Your task to perform on an android device: View the shopping cart on ebay. Add usb-b to the cart on ebay, then select checkout. Image 0: 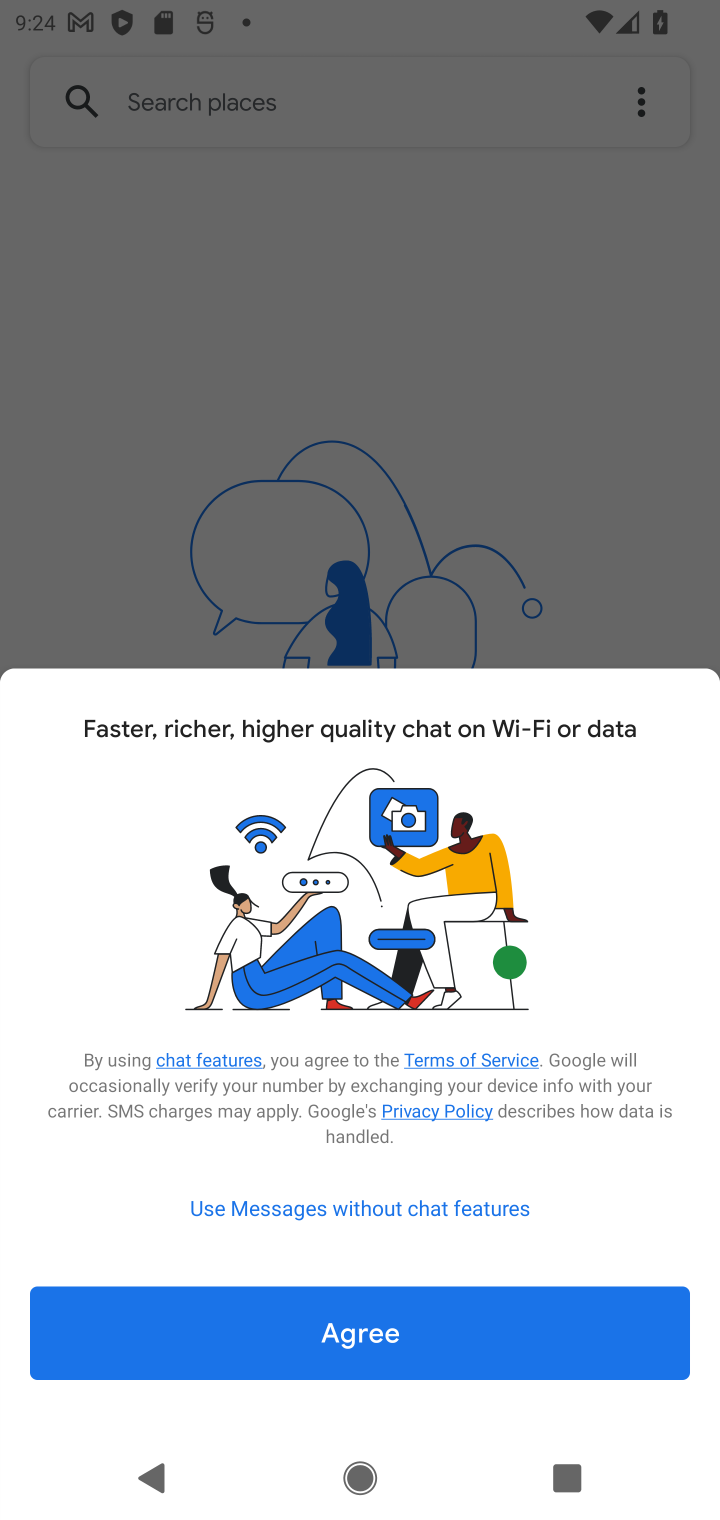
Step 0: press home button
Your task to perform on an android device: View the shopping cart on ebay. Add usb-b to the cart on ebay, then select checkout. Image 1: 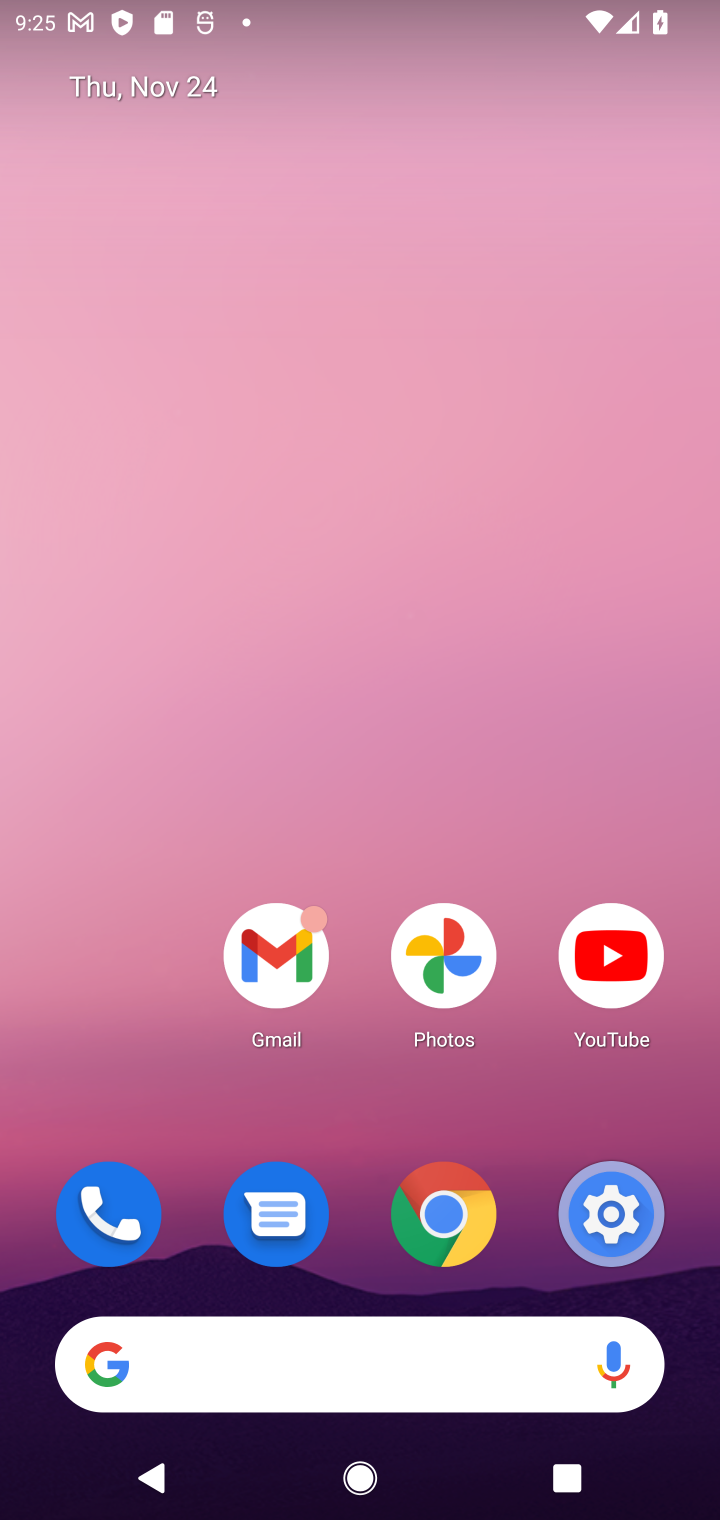
Step 1: click (333, 1402)
Your task to perform on an android device: View the shopping cart on ebay. Add usb-b to the cart on ebay, then select checkout. Image 2: 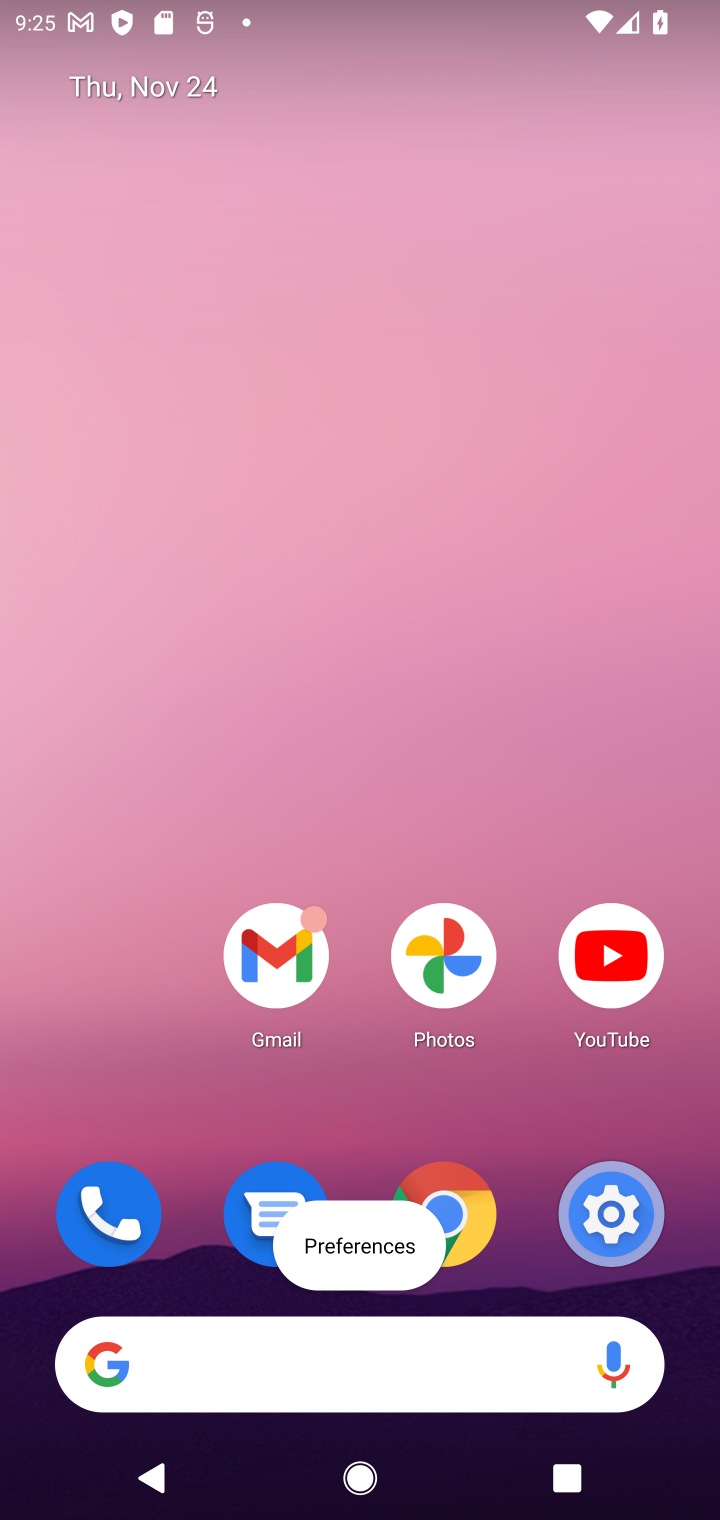
Step 2: type "ebay"
Your task to perform on an android device: View the shopping cart on ebay. Add usb-b to the cart on ebay, then select checkout. Image 3: 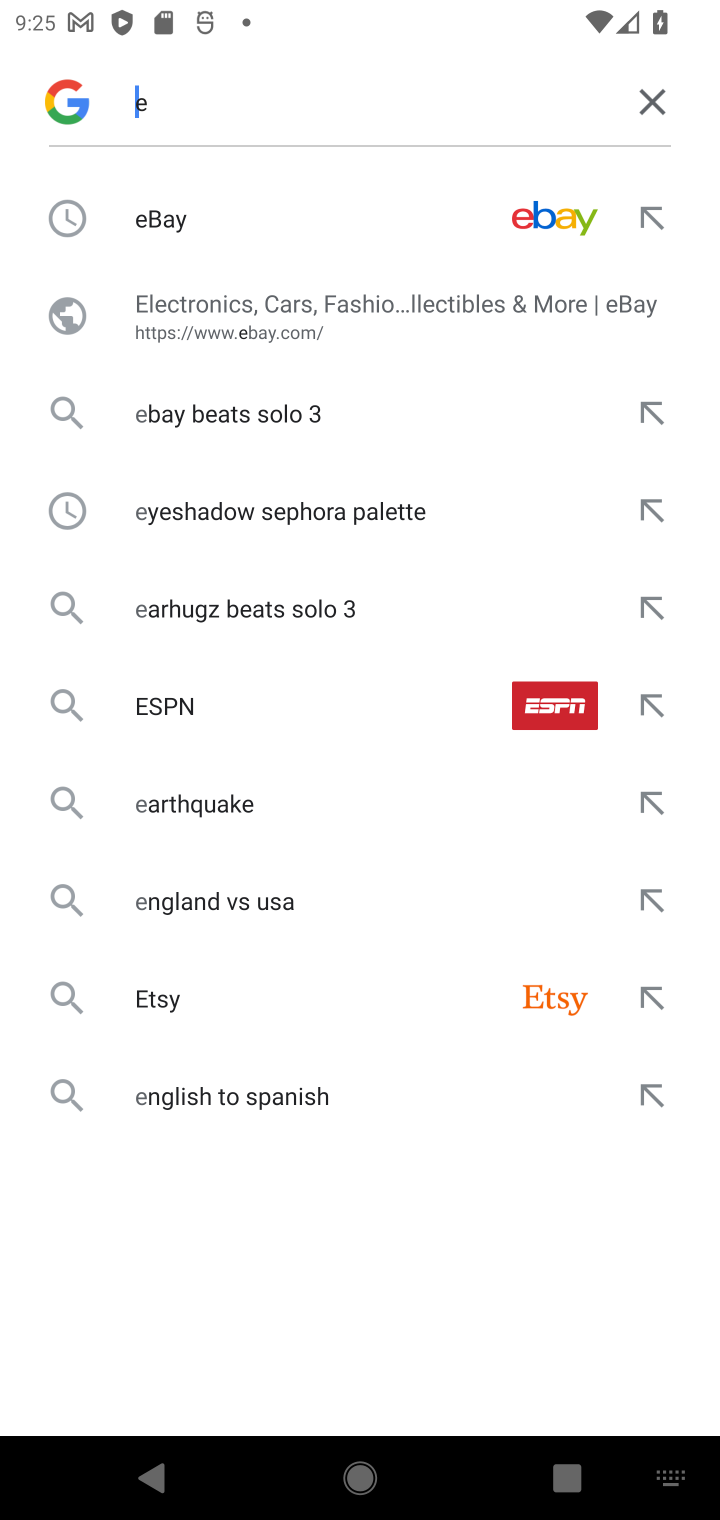
Step 3: click (292, 248)
Your task to perform on an android device: View the shopping cart on ebay. Add usb-b to the cart on ebay, then select checkout. Image 4: 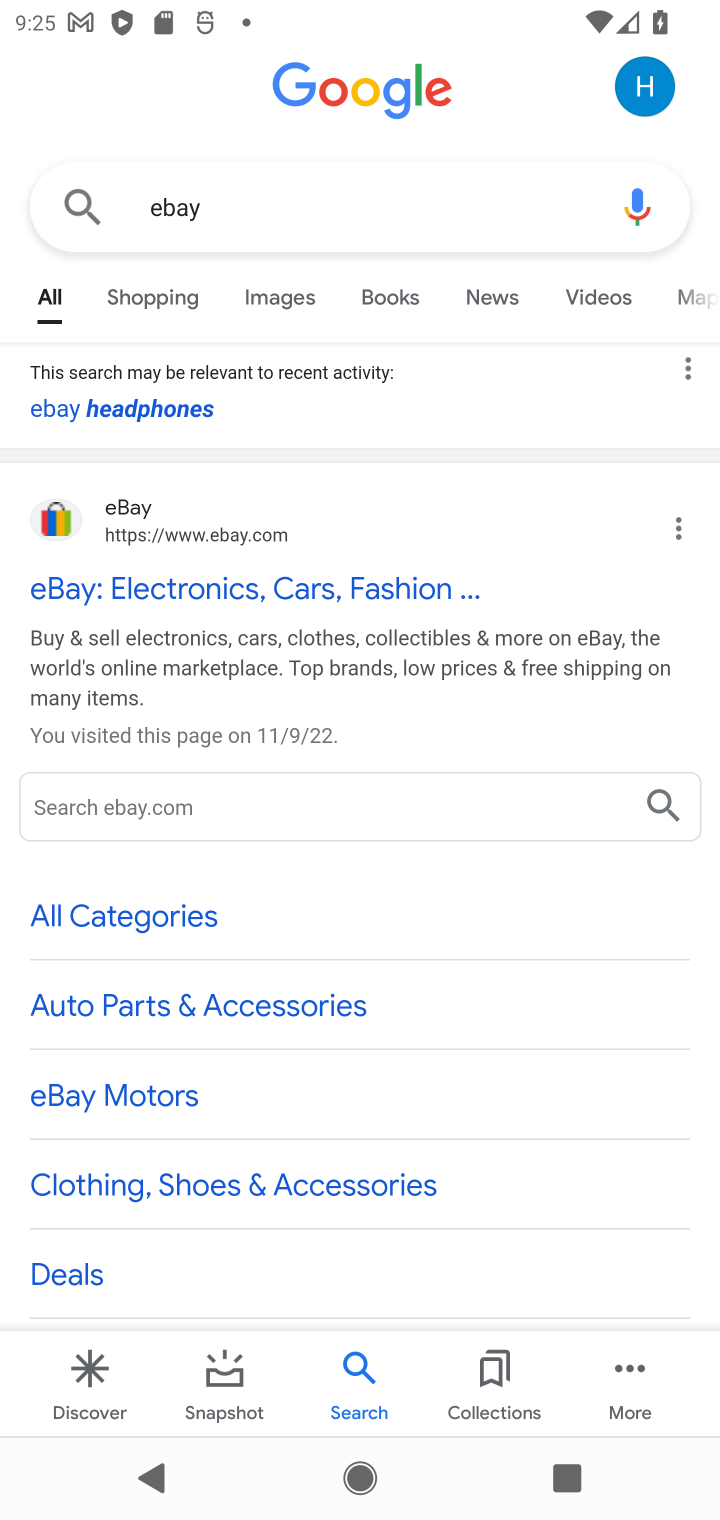
Step 4: click (188, 607)
Your task to perform on an android device: View the shopping cart on ebay. Add usb-b to the cart on ebay, then select checkout. Image 5: 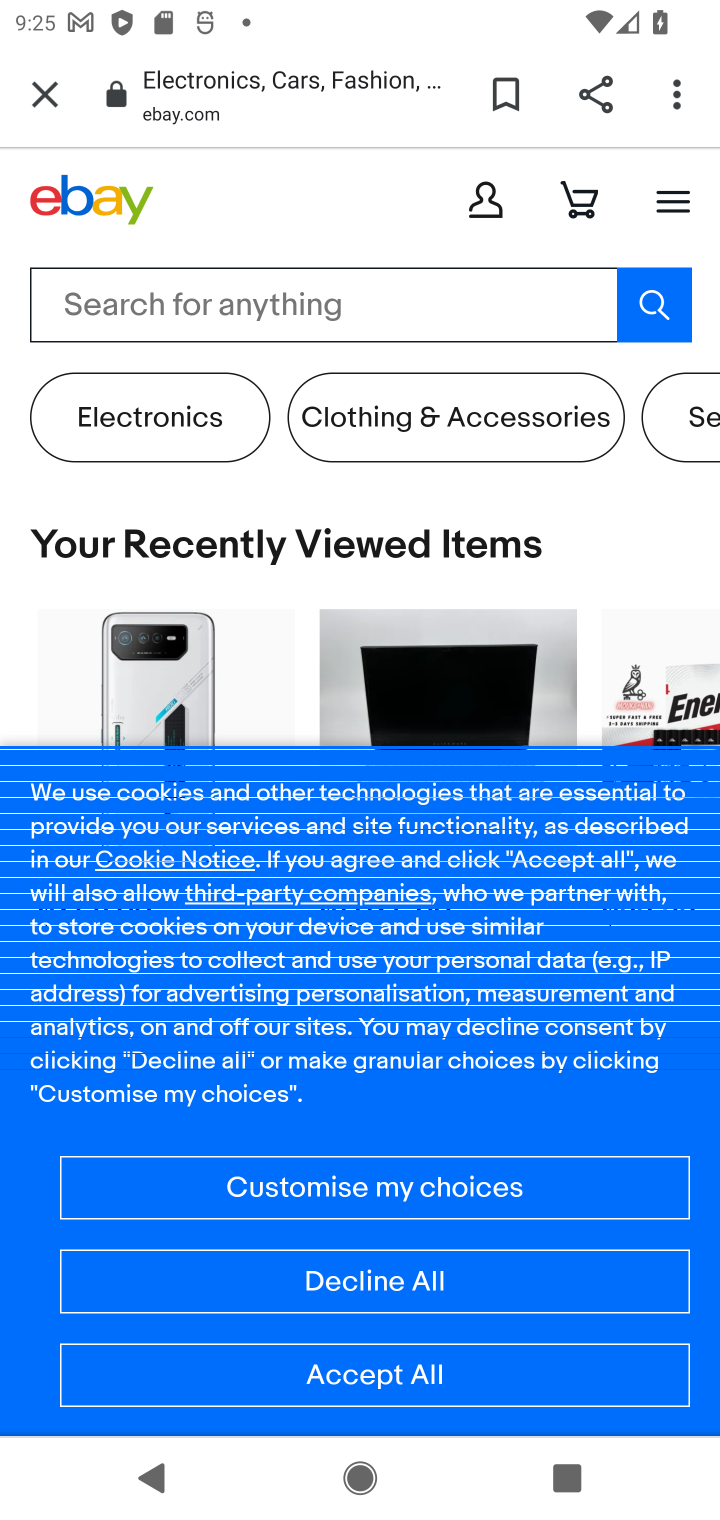
Step 5: click (466, 1400)
Your task to perform on an android device: View the shopping cart on ebay. Add usb-b to the cart on ebay, then select checkout. Image 6: 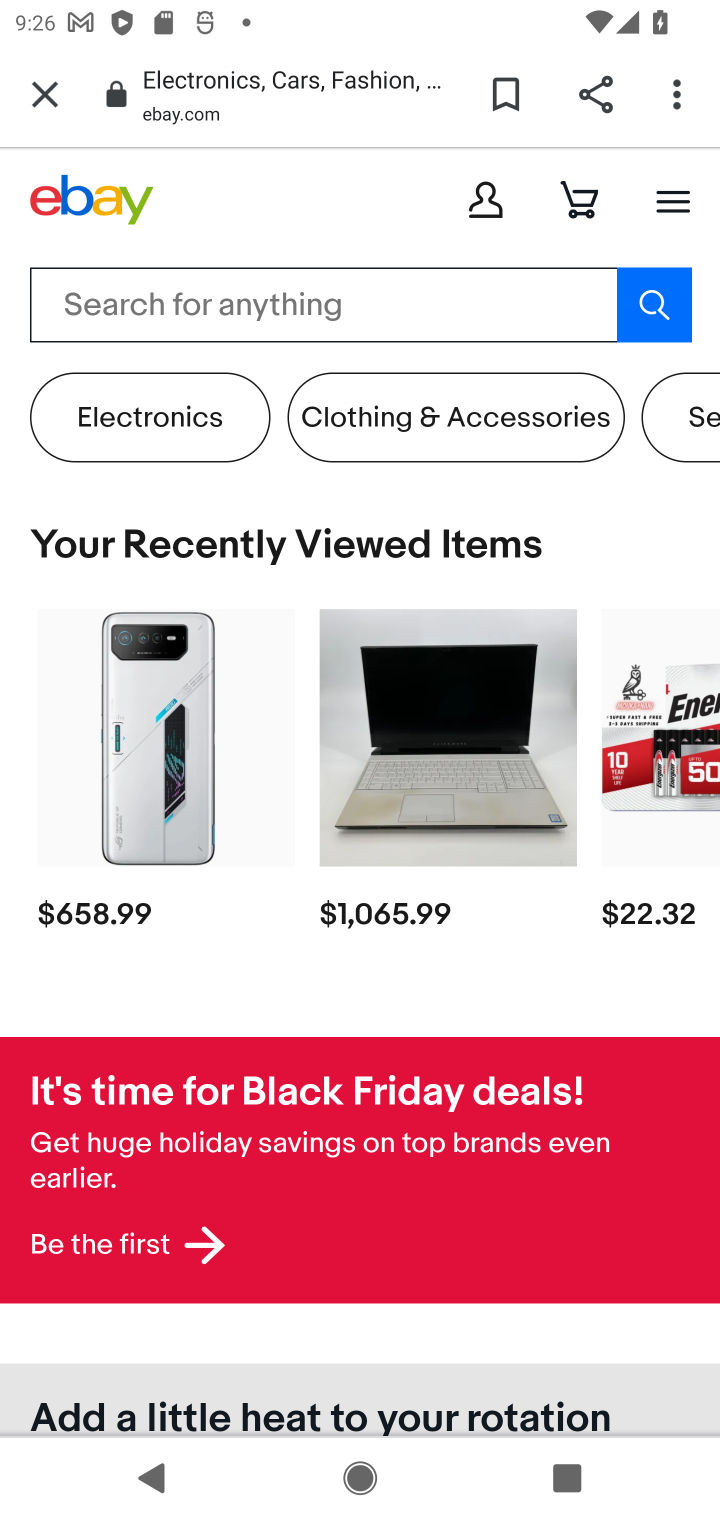
Step 6: task complete